Your task to perform on an android device: Open privacy settings Image 0: 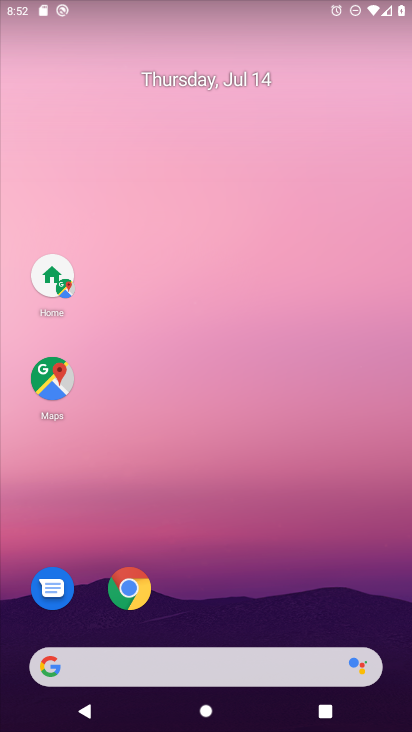
Step 0: drag from (63, 635) to (392, 159)
Your task to perform on an android device: Open privacy settings Image 1: 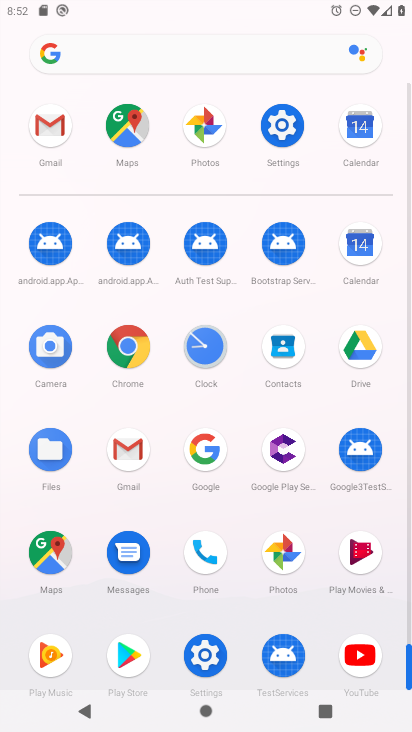
Step 1: click (199, 652)
Your task to perform on an android device: Open privacy settings Image 2: 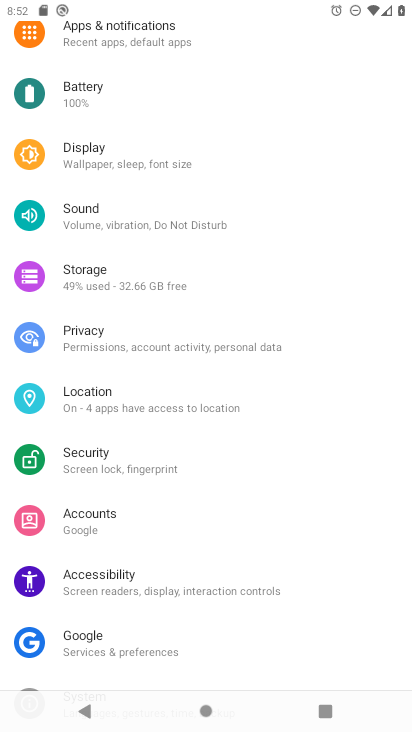
Step 2: click (105, 332)
Your task to perform on an android device: Open privacy settings Image 3: 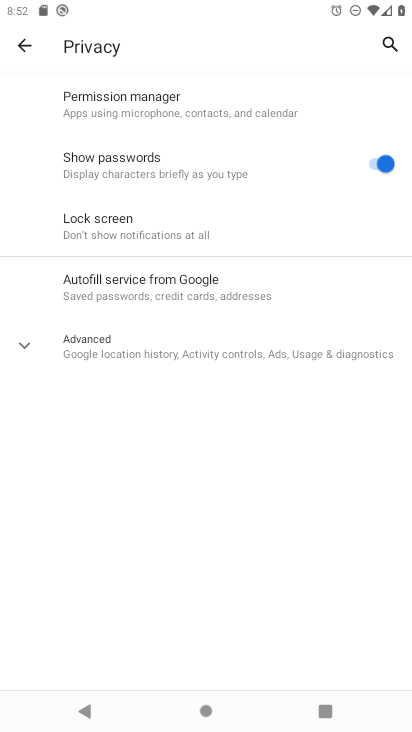
Step 3: task complete